Your task to perform on an android device: turn on javascript in the chrome app Image 0: 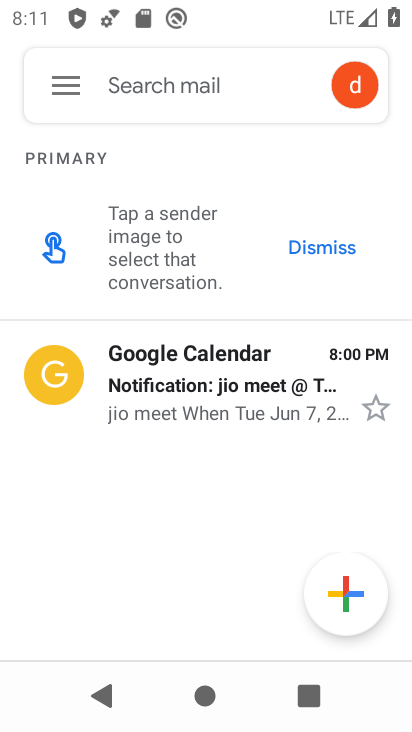
Step 0: press home button
Your task to perform on an android device: turn on javascript in the chrome app Image 1: 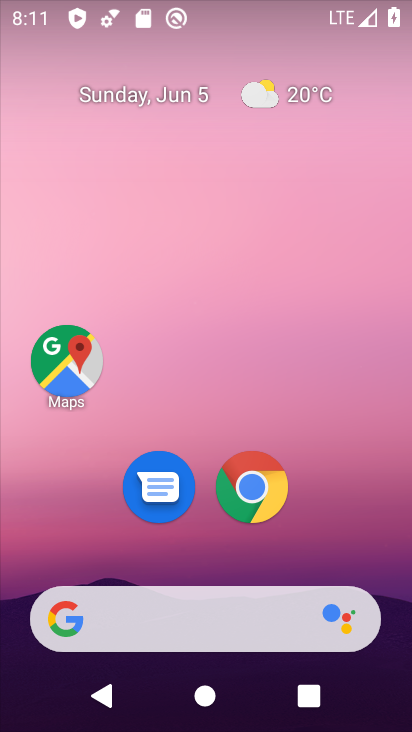
Step 1: drag from (206, 571) to (199, 179)
Your task to perform on an android device: turn on javascript in the chrome app Image 2: 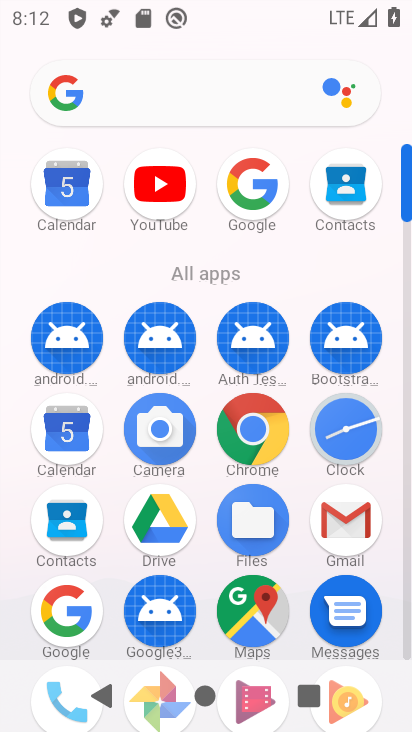
Step 2: drag from (298, 612) to (288, 324)
Your task to perform on an android device: turn on javascript in the chrome app Image 3: 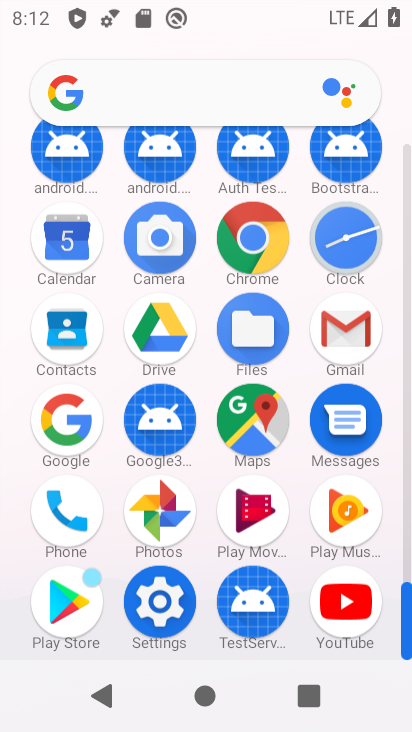
Step 3: click (266, 271)
Your task to perform on an android device: turn on javascript in the chrome app Image 4: 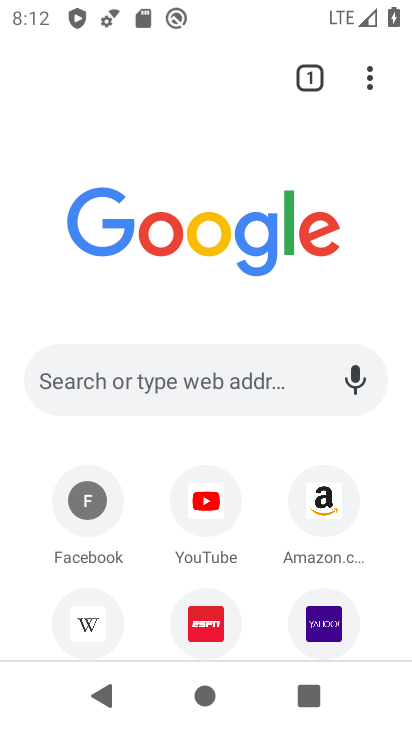
Step 4: drag from (365, 77) to (110, 539)
Your task to perform on an android device: turn on javascript in the chrome app Image 5: 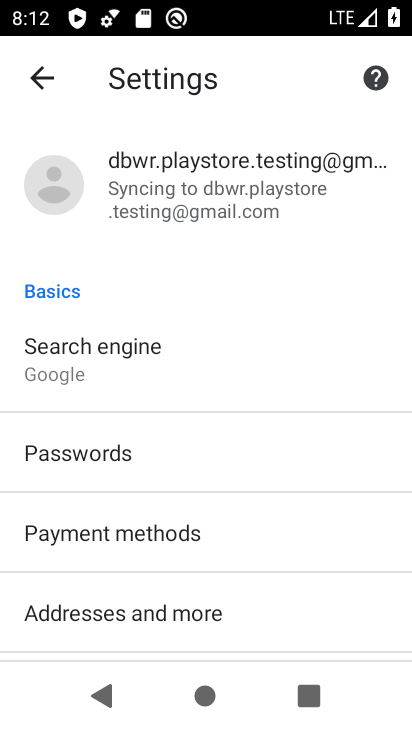
Step 5: drag from (244, 580) to (248, 233)
Your task to perform on an android device: turn on javascript in the chrome app Image 6: 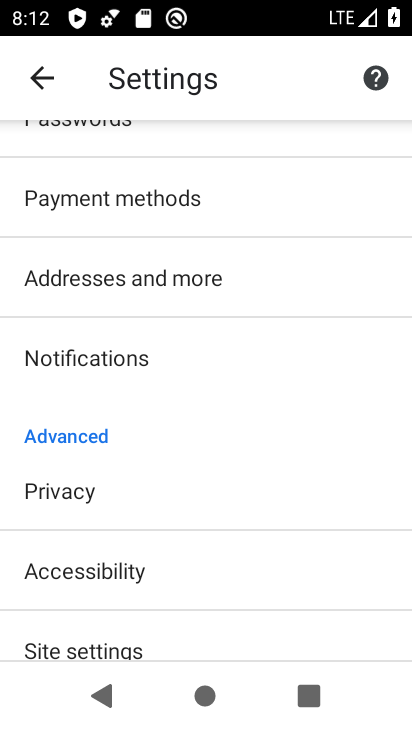
Step 6: drag from (203, 538) to (197, 296)
Your task to perform on an android device: turn on javascript in the chrome app Image 7: 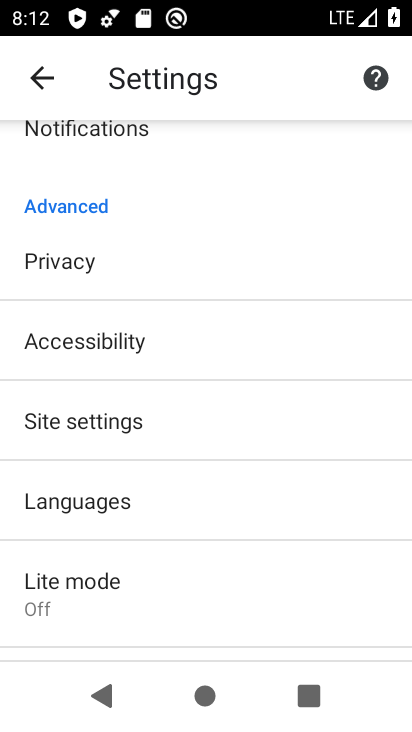
Step 7: click (115, 438)
Your task to perform on an android device: turn on javascript in the chrome app Image 8: 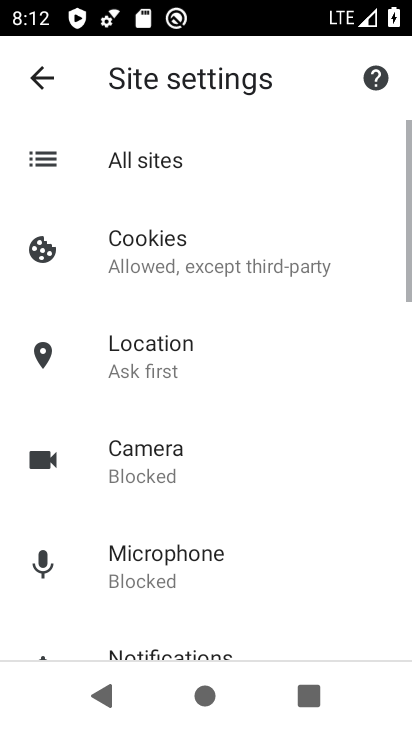
Step 8: drag from (177, 628) to (160, 381)
Your task to perform on an android device: turn on javascript in the chrome app Image 9: 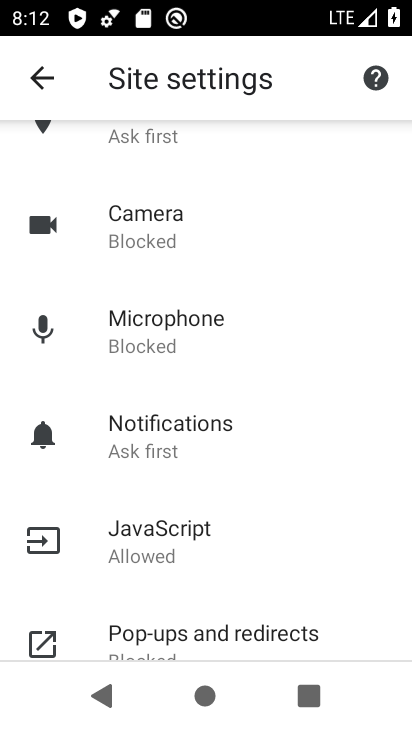
Step 9: click (163, 547)
Your task to perform on an android device: turn on javascript in the chrome app Image 10: 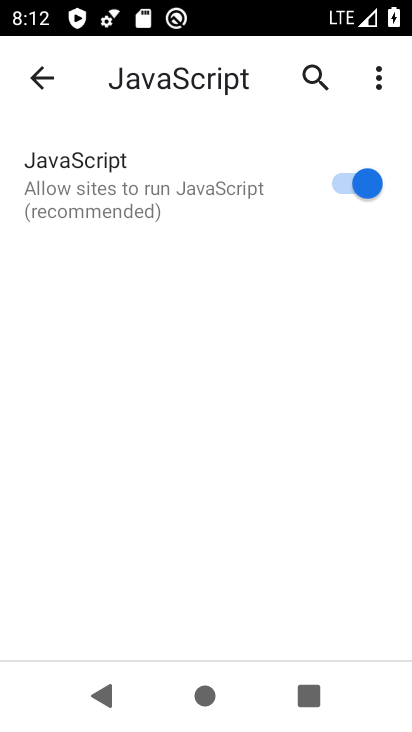
Step 10: task complete